Your task to perform on an android device: check data usage Image 0: 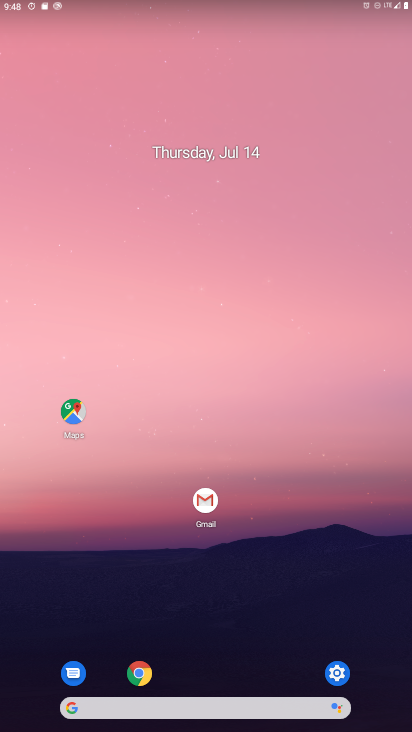
Step 0: press home button
Your task to perform on an android device: check data usage Image 1: 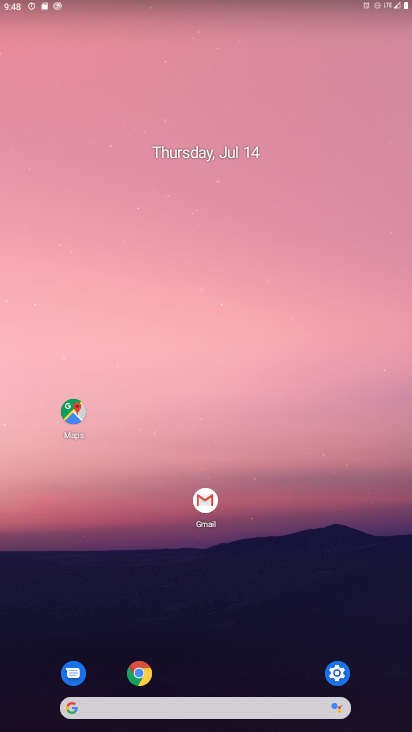
Step 1: click (326, 666)
Your task to perform on an android device: check data usage Image 2: 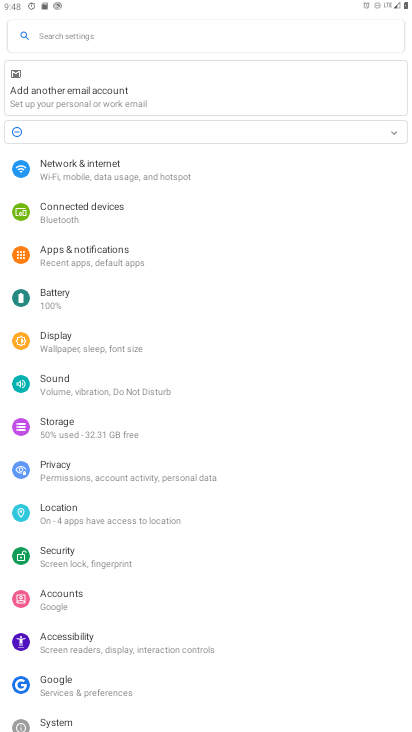
Step 2: click (93, 37)
Your task to perform on an android device: check data usage Image 3: 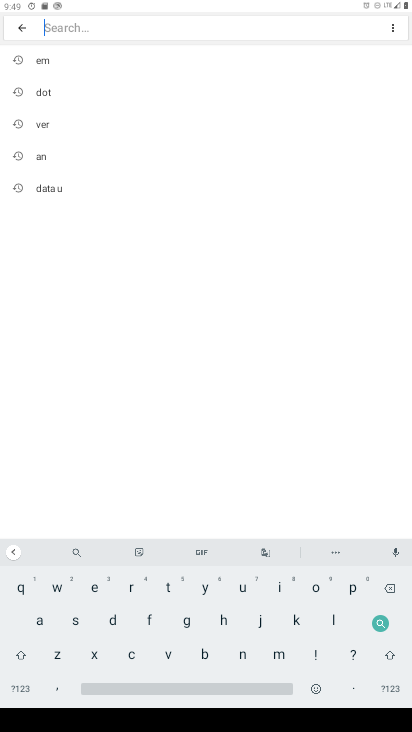
Step 3: click (72, 188)
Your task to perform on an android device: check data usage Image 4: 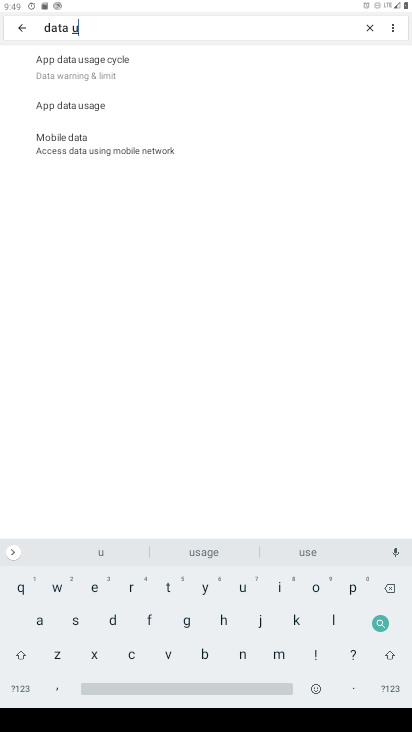
Step 4: click (77, 109)
Your task to perform on an android device: check data usage Image 5: 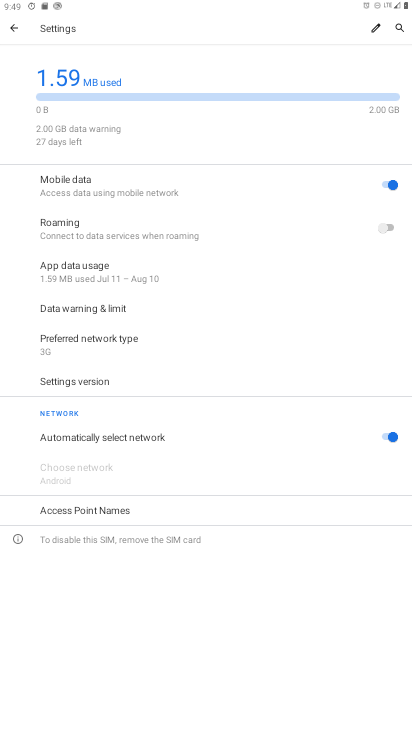
Step 5: task complete